Your task to perform on an android device: check battery use Image 0: 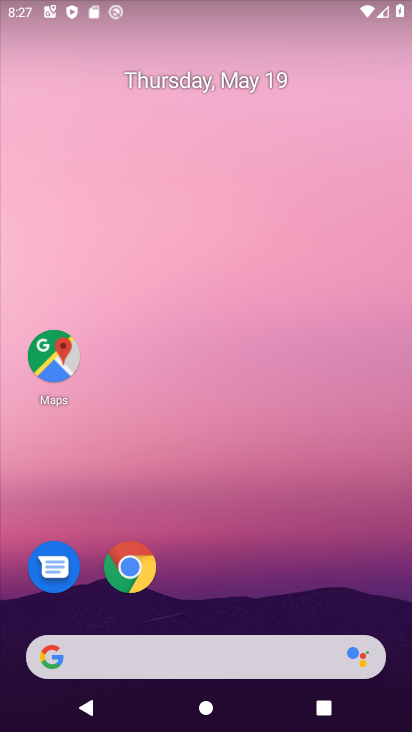
Step 0: drag from (207, 579) to (270, 32)
Your task to perform on an android device: check battery use Image 1: 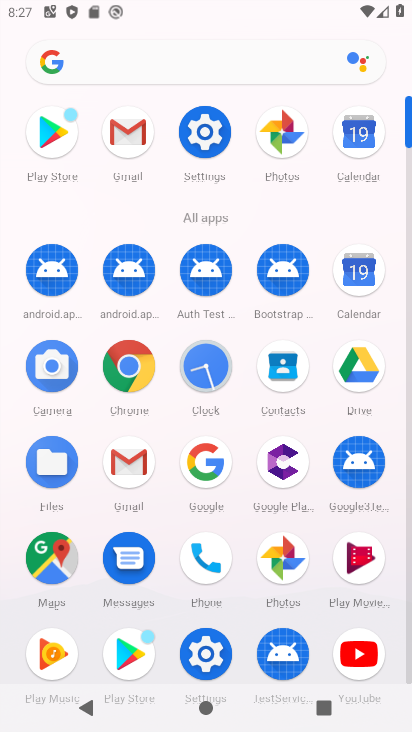
Step 1: click (214, 142)
Your task to perform on an android device: check battery use Image 2: 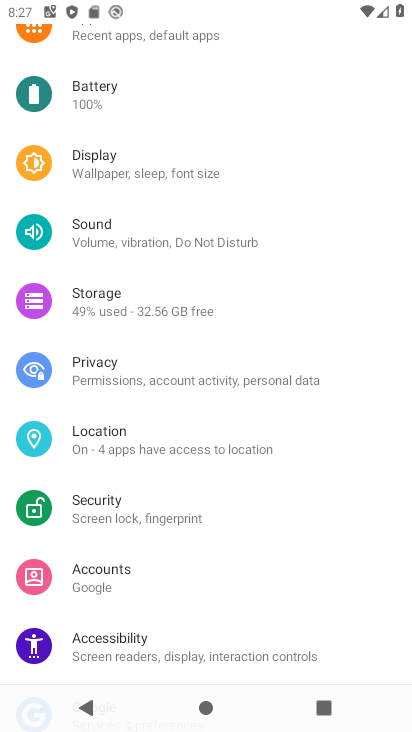
Step 2: click (115, 84)
Your task to perform on an android device: check battery use Image 3: 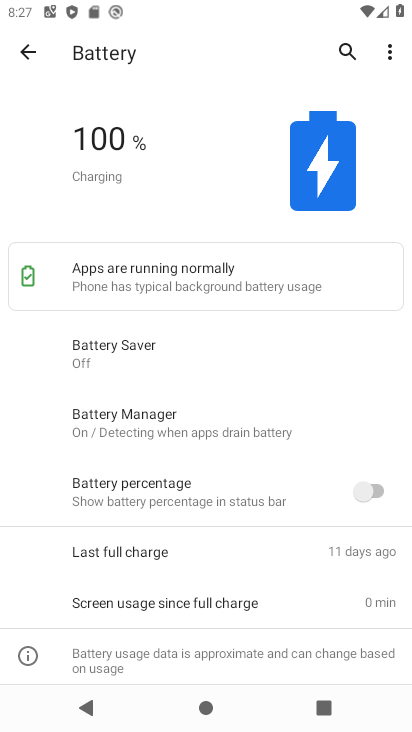
Step 3: click (391, 53)
Your task to perform on an android device: check battery use Image 4: 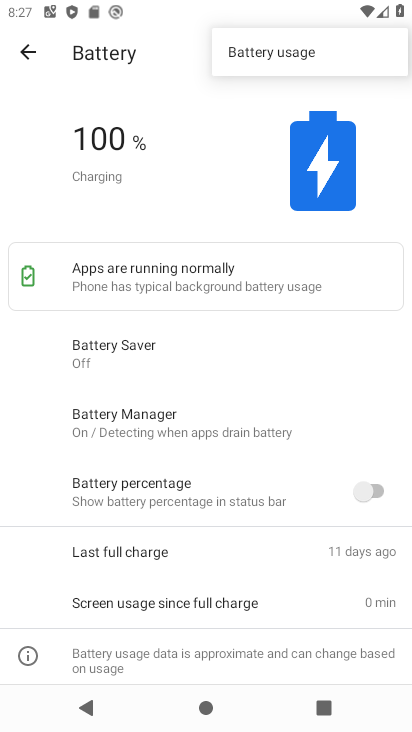
Step 4: click (358, 63)
Your task to perform on an android device: check battery use Image 5: 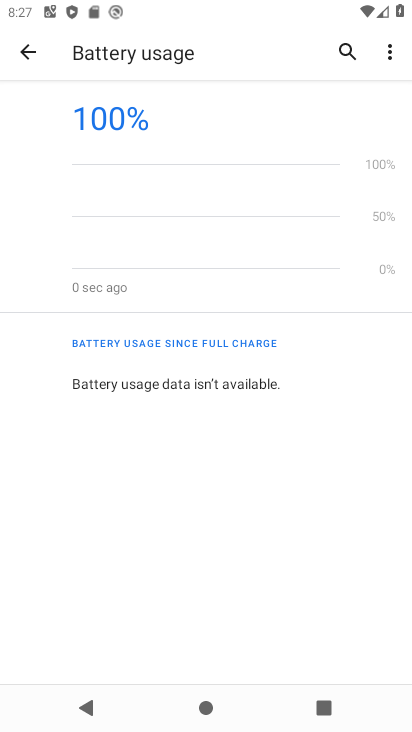
Step 5: task complete